Your task to perform on an android device: choose inbox layout in the gmail app Image 0: 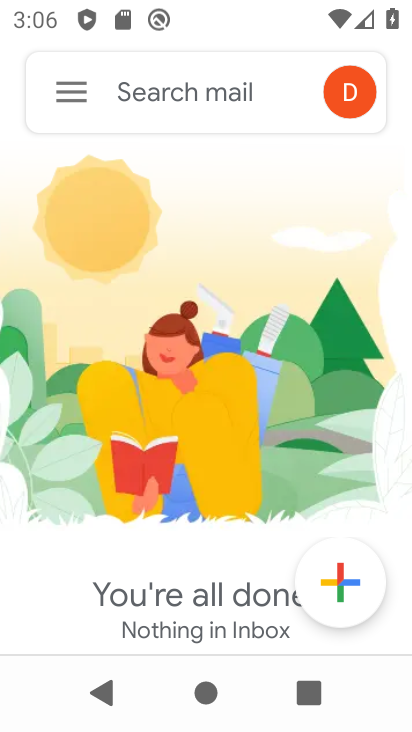
Step 0: click (76, 97)
Your task to perform on an android device: choose inbox layout in the gmail app Image 1: 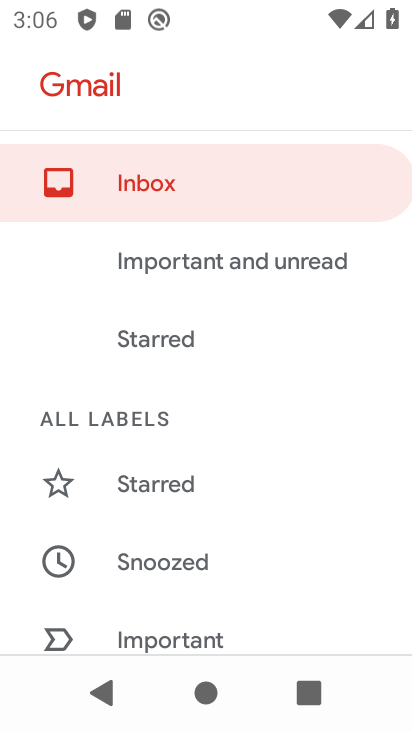
Step 1: drag from (222, 618) to (216, 71)
Your task to perform on an android device: choose inbox layout in the gmail app Image 2: 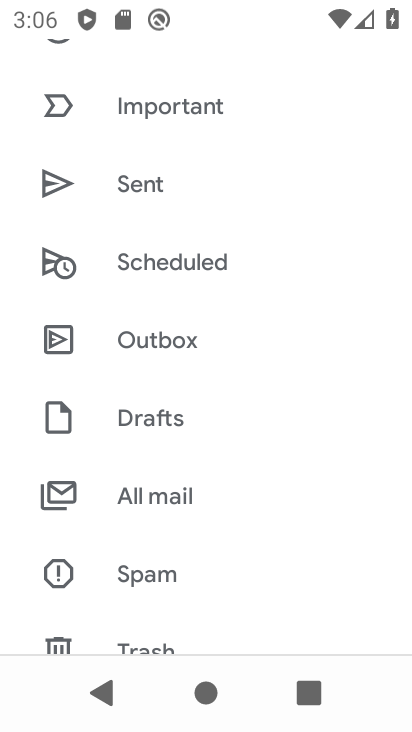
Step 2: drag from (193, 515) to (208, 100)
Your task to perform on an android device: choose inbox layout in the gmail app Image 3: 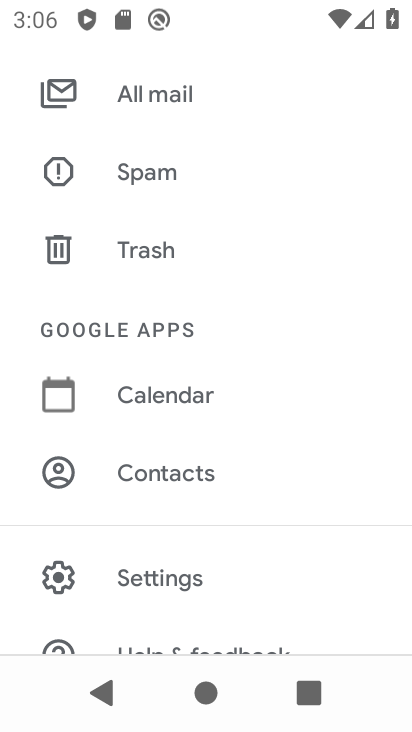
Step 3: drag from (210, 531) to (205, 189)
Your task to perform on an android device: choose inbox layout in the gmail app Image 4: 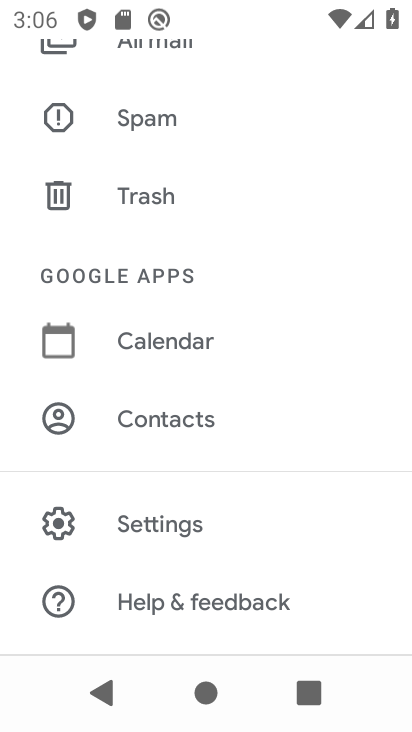
Step 4: click (171, 530)
Your task to perform on an android device: choose inbox layout in the gmail app Image 5: 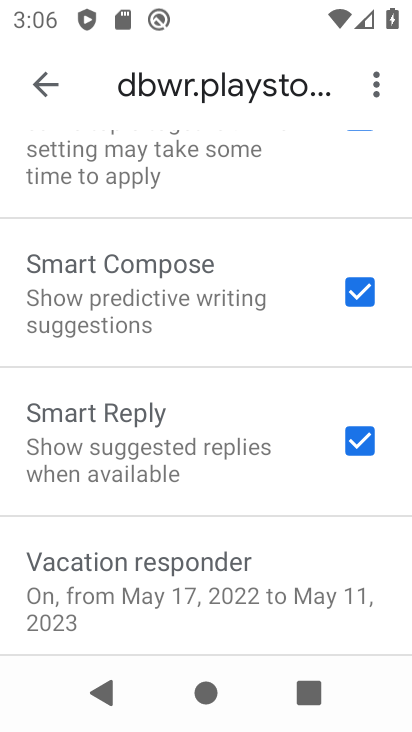
Step 5: drag from (167, 173) to (175, 586)
Your task to perform on an android device: choose inbox layout in the gmail app Image 6: 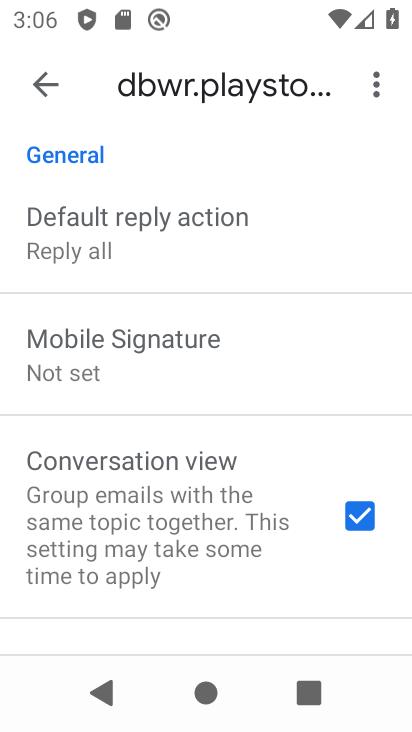
Step 6: drag from (170, 177) to (170, 538)
Your task to perform on an android device: choose inbox layout in the gmail app Image 7: 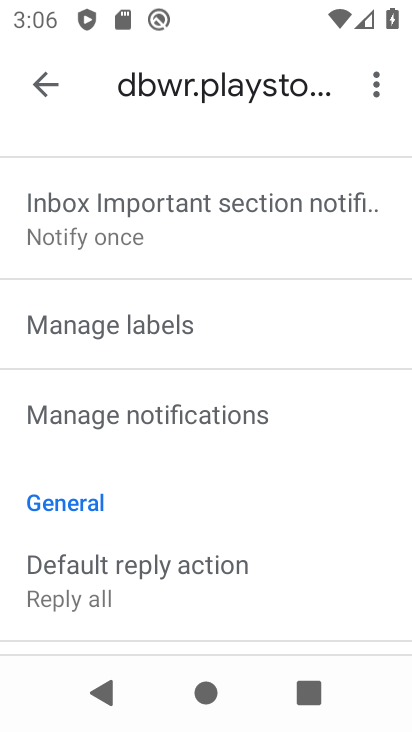
Step 7: drag from (160, 219) to (208, 584)
Your task to perform on an android device: choose inbox layout in the gmail app Image 8: 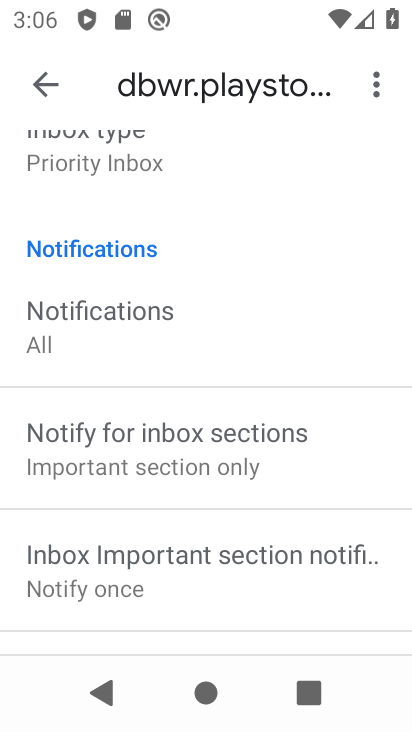
Step 8: drag from (123, 223) to (132, 504)
Your task to perform on an android device: choose inbox layout in the gmail app Image 9: 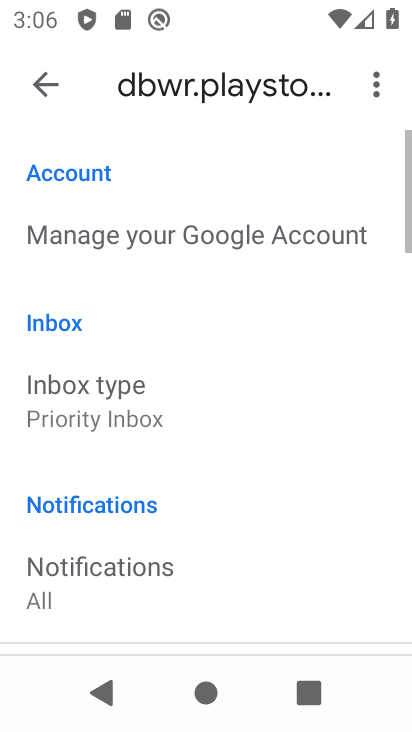
Step 9: click (137, 424)
Your task to perform on an android device: choose inbox layout in the gmail app Image 10: 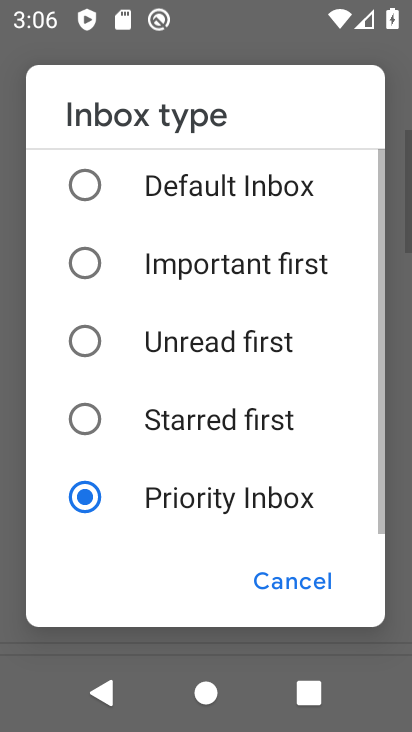
Step 10: click (152, 411)
Your task to perform on an android device: choose inbox layout in the gmail app Image 11: 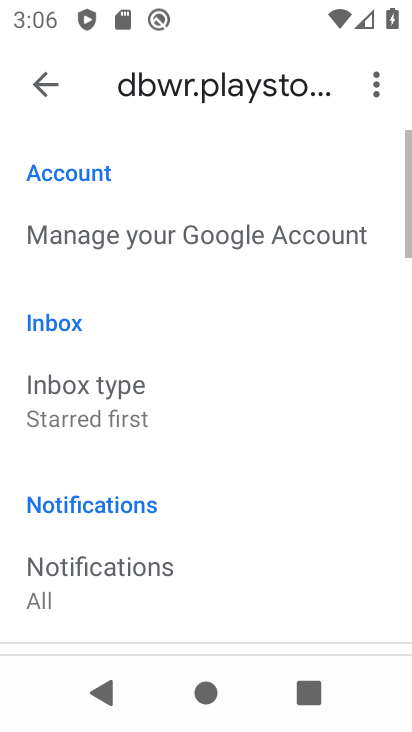
Step 11: task complete